Your task to perform on an android device: Open accessibility settings Image 0: 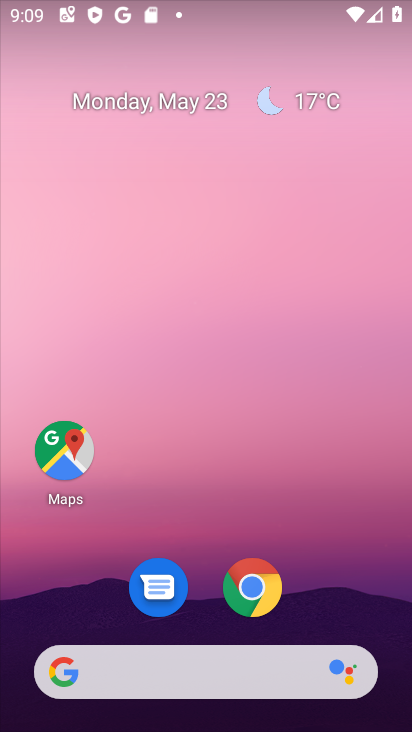
Step 0: drag from (181, 519) to (337, 60)
Your task to perform on an android device: Open accessibility settings Image 1: 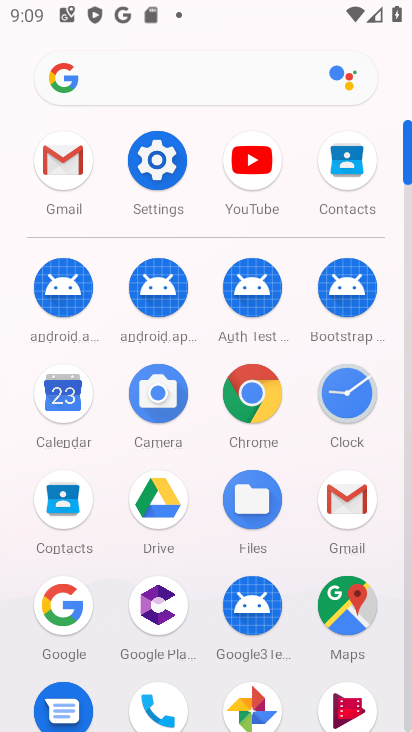
Step 1: click (159, 169)
Your task to perform on an android device: Open accessibility settings Image 2: 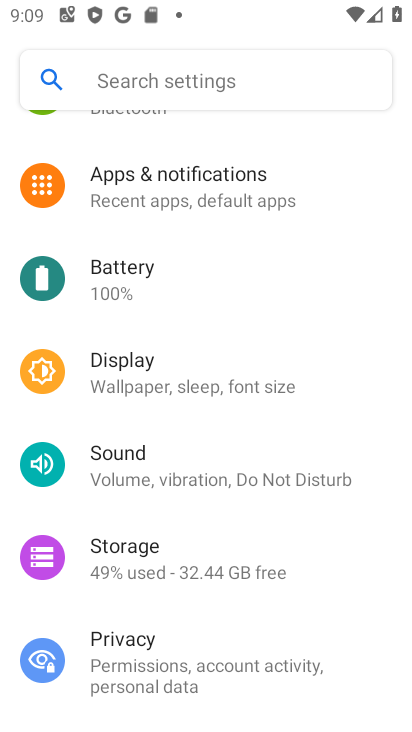
Step 2: drag from (204, 628) to (338, 113)
Your task to perform on an android device: Open accessibility settings Image 3: 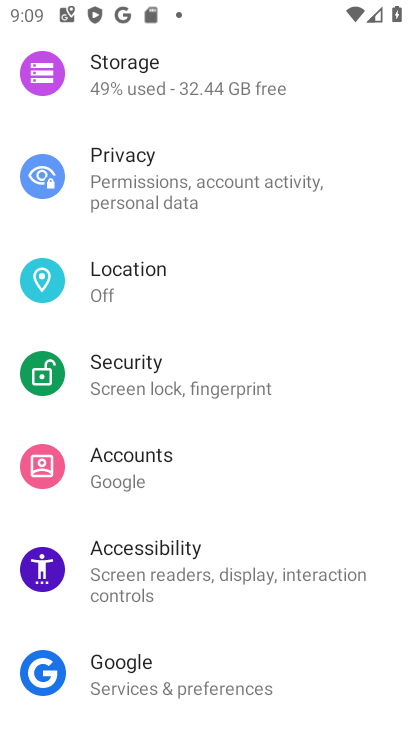
Step 3: click (137, 561)
Your task to perform on an android device: Open accessibility settings Image 4: 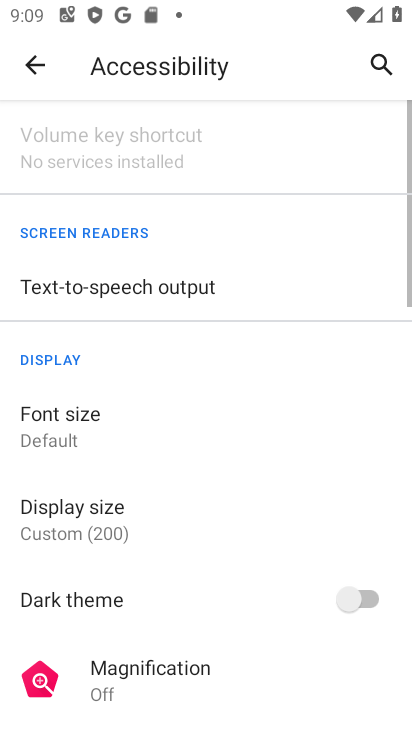
Step 4: task complete